Your task to perform on an android device: star an email in the gmail app Image 0: 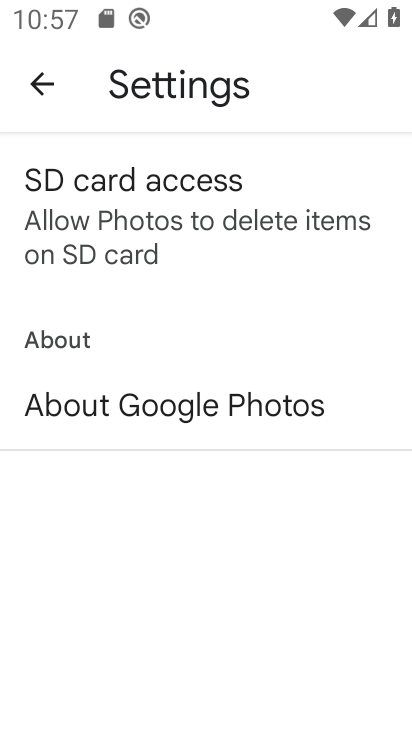
Step 0: press home button
Your task to perform on an android device: star an email in the gmail app Image 1: 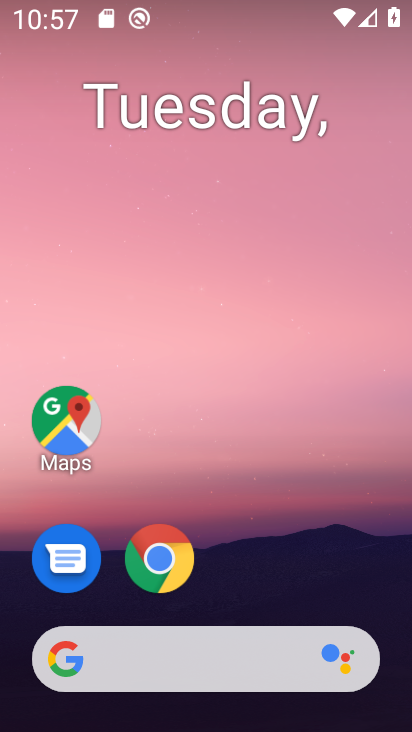
Step 1: drag from (333, 554) to (341, 143)
Your task to perform on an android device: star an email in the gmail app Image 2: 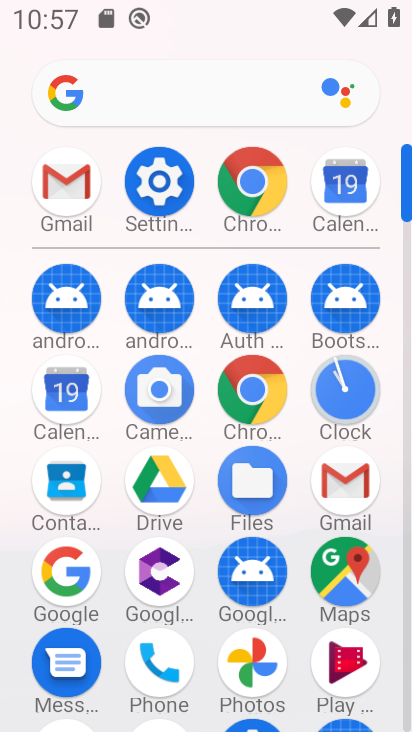
Step 2: click (363, 482)
Your task to perform on an android device: star an email in the gmail app Image 3: 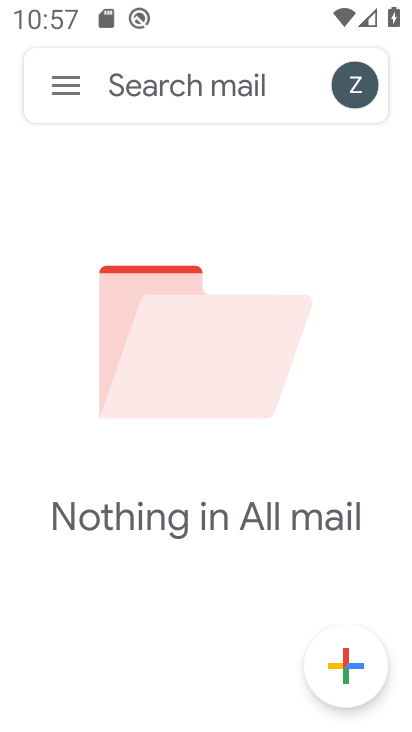
Step 3: click (68, 86)
Your task to perform on an android device: star an email in the gmail app Image 4: 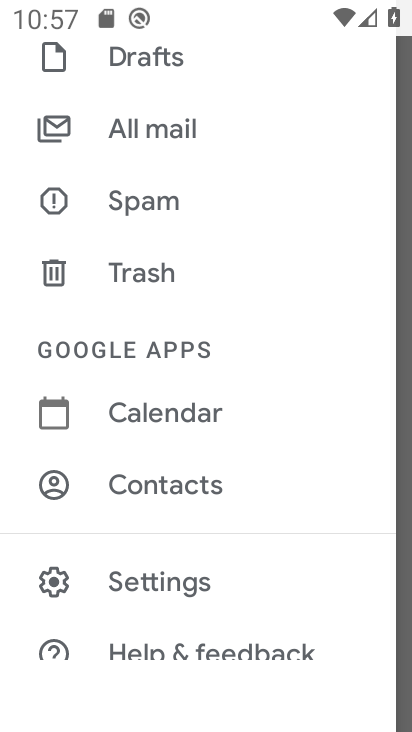
Step 4: drag from (302, 195) to (304, 325)
Your task to perform on an android device: star an email in the gmail app Image 5: 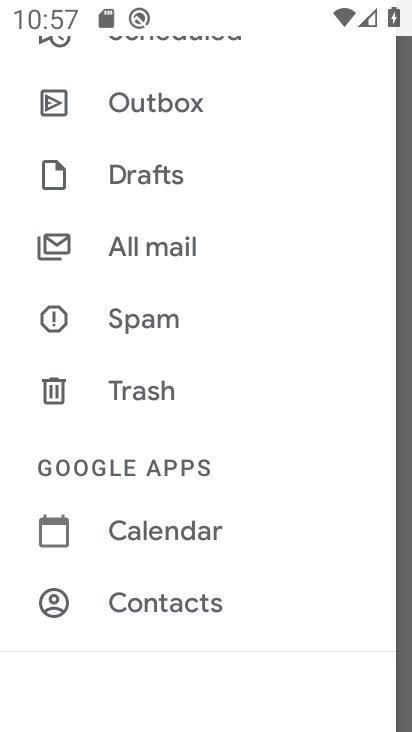
Step 5: drag from (307, 176) to (310, 325)
Your task to perform on an android device: star an email in the gmail app Image 6: 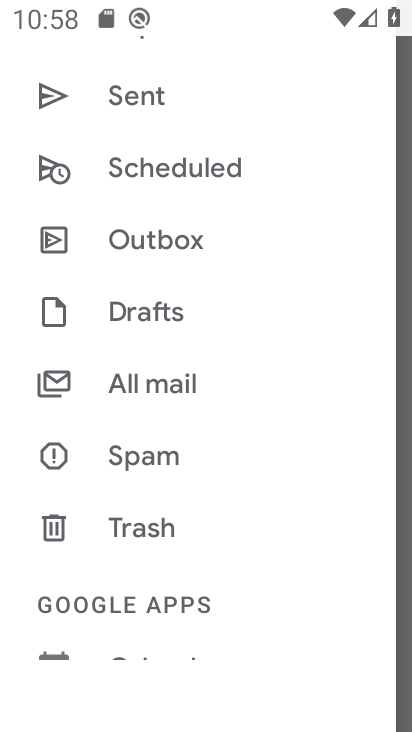
Step 6: drag from (316, 175) to (313, 319)
Your task to perform on an android device: star an email in the gmail app Image 7: 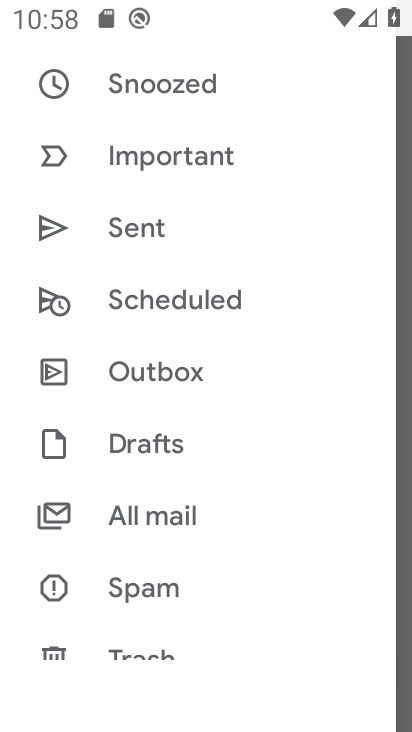
Step 7: click (202, 509)
Your task to perform on an android device: star an email in the gmail app Image 8: 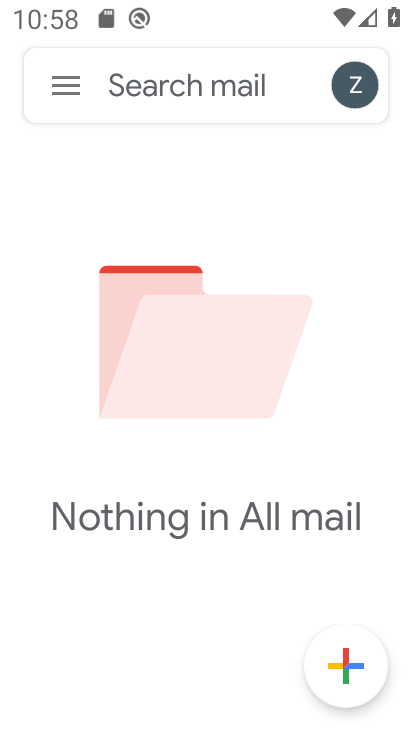
Step 8: task complete